Your task to perform on an android device: Go to network settings Image 0: 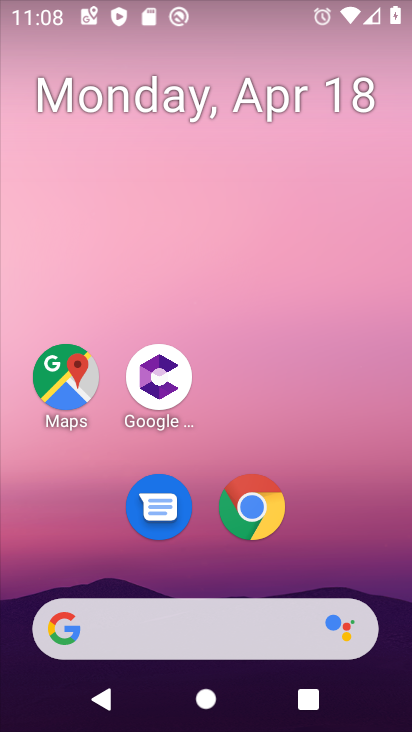
Step 0: drag from (276, 665) to (231, 281)
Your task to perform on an android device: Go to network settings Image 1: 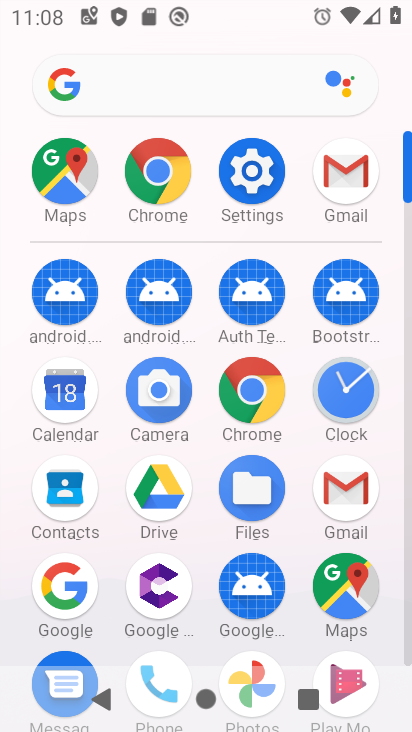
Step 1: click (223, 202)
Your task to perform on an android device: Go to network settings Image 2: 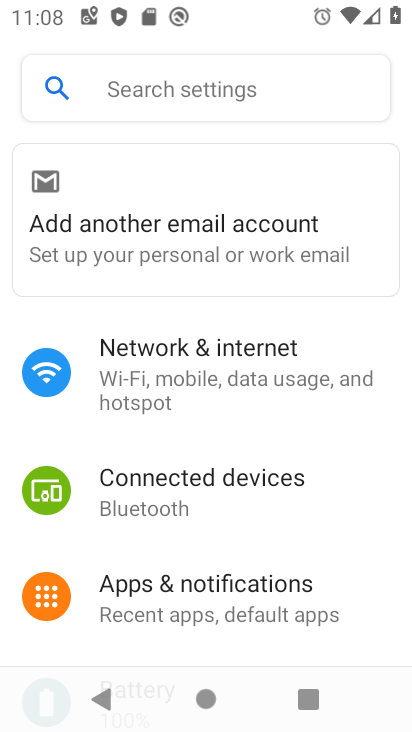
Step 2: click (164, 366)
Your task to perform on an android device: Go to network settings Image 3: 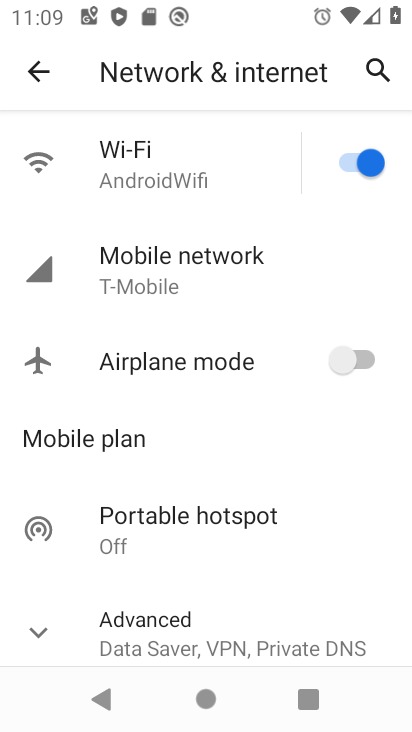
Step 3: click (168, 306)
Your task to perform on an android device: Go to network settings Image 4: 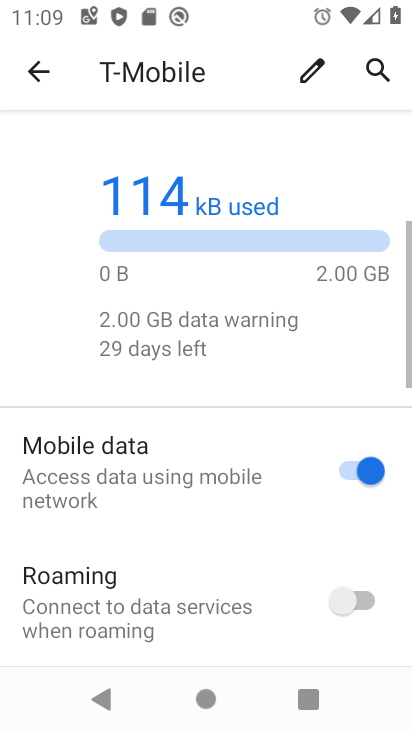
Step 4: task complete